Your task to perform on an android device: show emergency info Image 0: 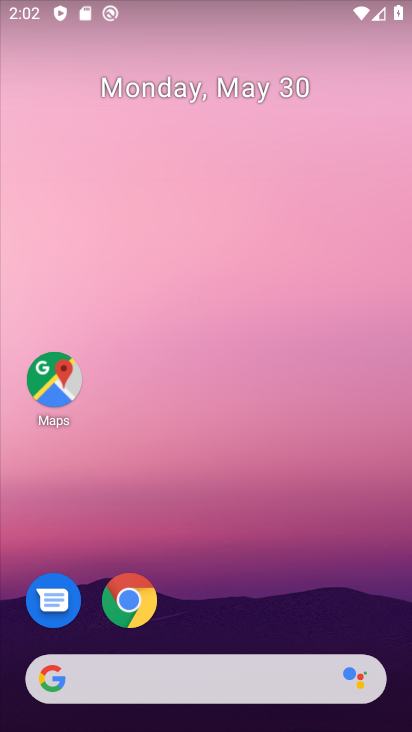
Step 0: drag from (256, 612) to (226, 80)
Your task to perform on an android device: show emergency info Image 1: 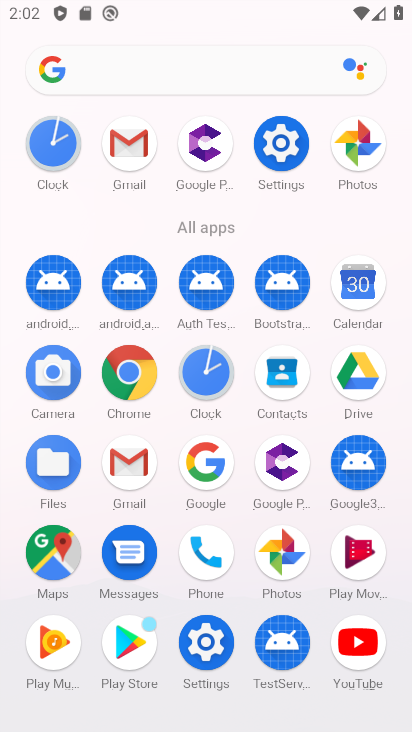
Step 1: click (285, 140)
Your task to perform on an android device: show emergency info Image 2: 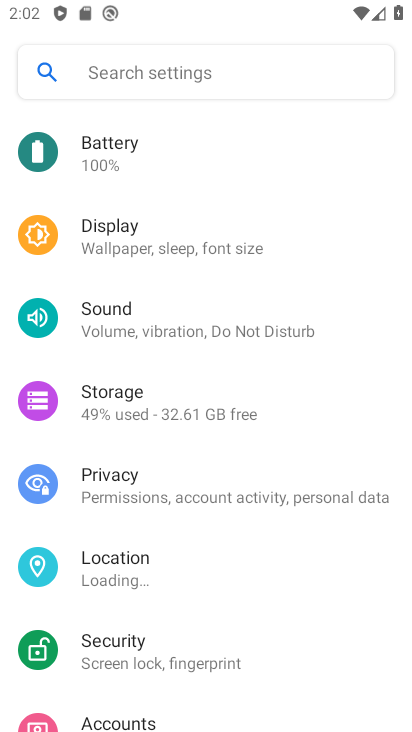
Step 2: drag from (268, 683) to (239, 183)
Your task to perform on an android device: show emergency info Image 3: 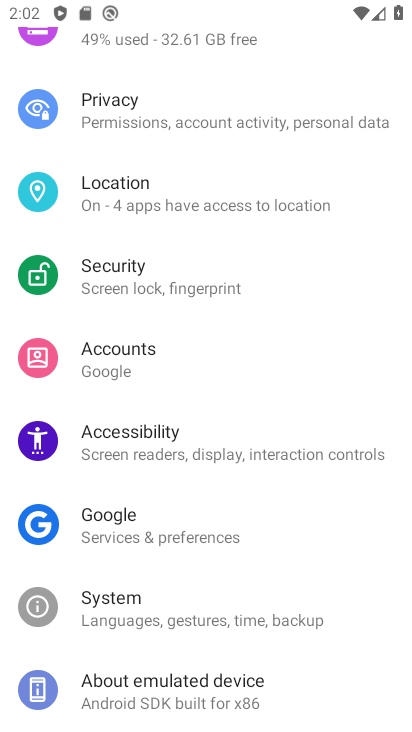
Step 3: click (183, 695)
Your task to perform on an android device: show emergency info Image 4: 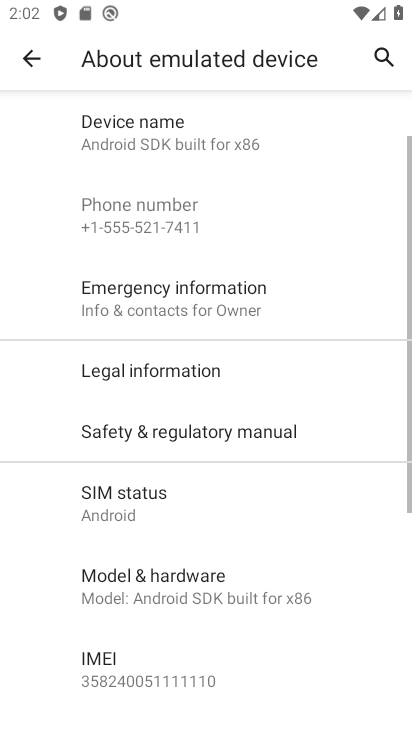
Step 4: click (230, 313)
Your task to perform on an android device: show emergency info Image 5: 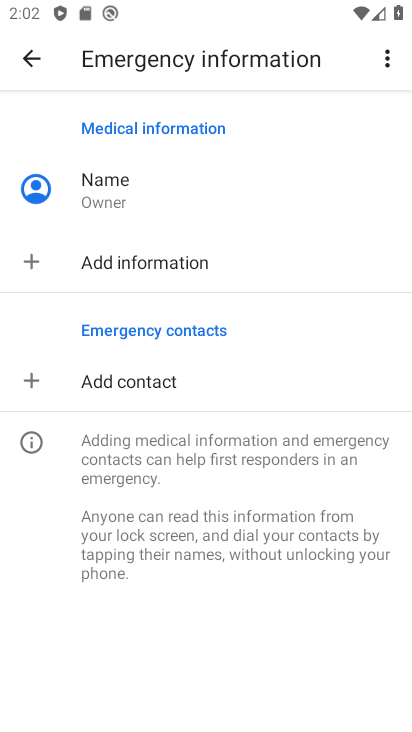
Step 5: task complete